Your task to perform on an android device: Show me productivity apps on the Play Store Image 0: 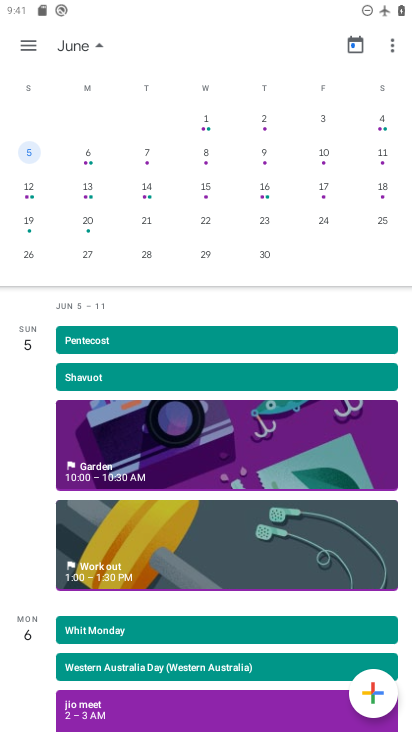
Step 0: press home button
Your task to perform on an android device: Show me productivity apps on the Play Store Image 1: 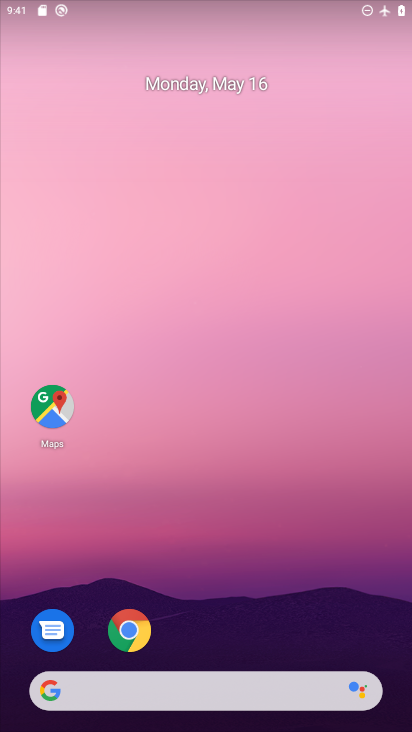
Step 1: drag from (234, 638) to (255, 247)
Your task to perform on an android device: Show me productivity apps on the Play Store Image 2: 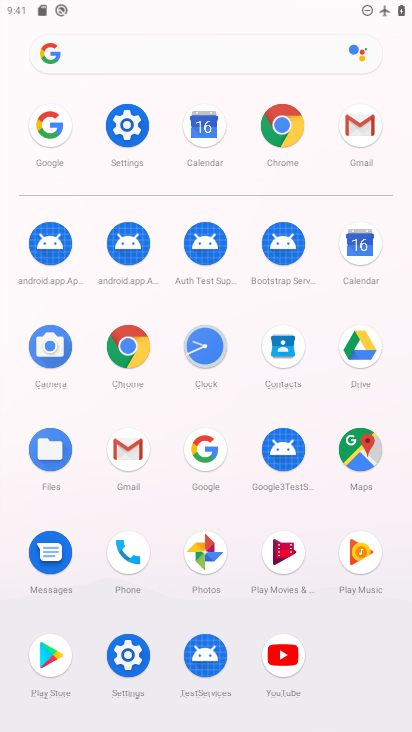
Step 2: click (55, 653)
Your task to perform on an android device: Show me productivity apps on the Play Store Image 3: 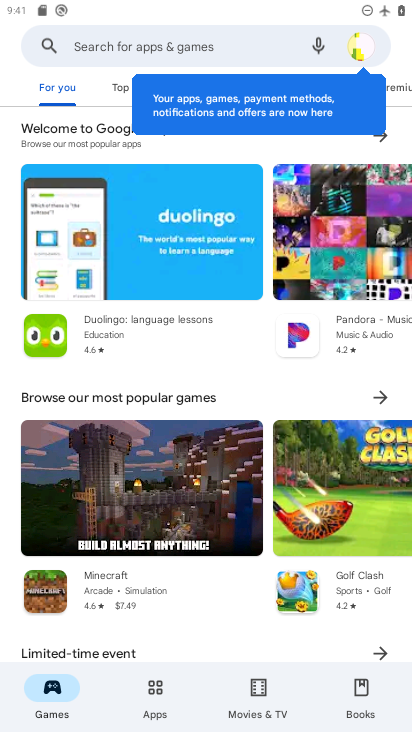
Step 3: click (147, 685)
Your task to perform on an android device: Show me productivity apps on the Play Store Image 4: 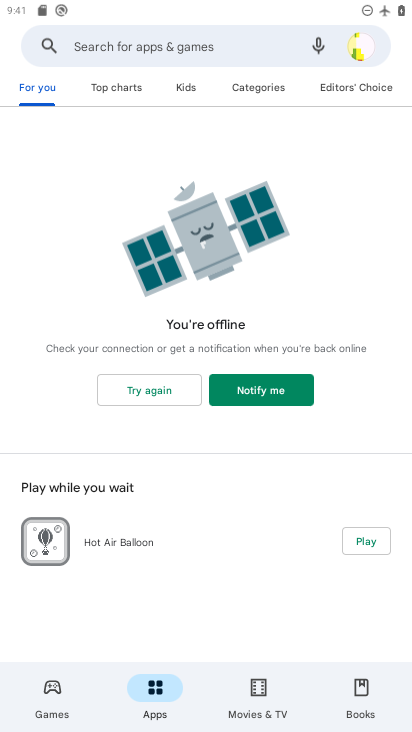
Step 4: click (275, 87)
Your task to perform on an android device: Show me productivity apps on the Play Store Image 5: 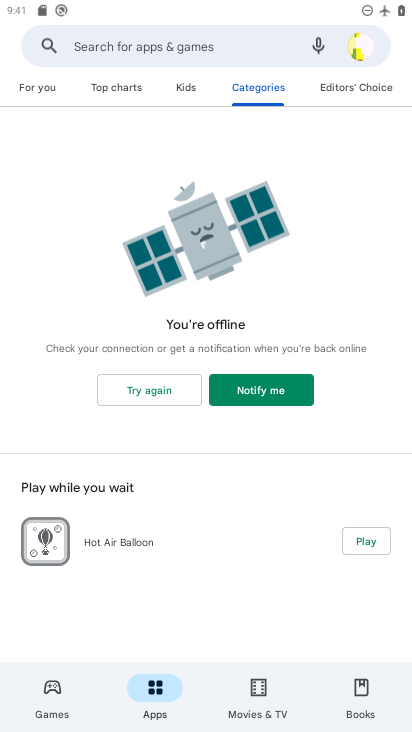
Step 5: task complete